Your task to perform on an android device: Toggle the flashlight Image 0: 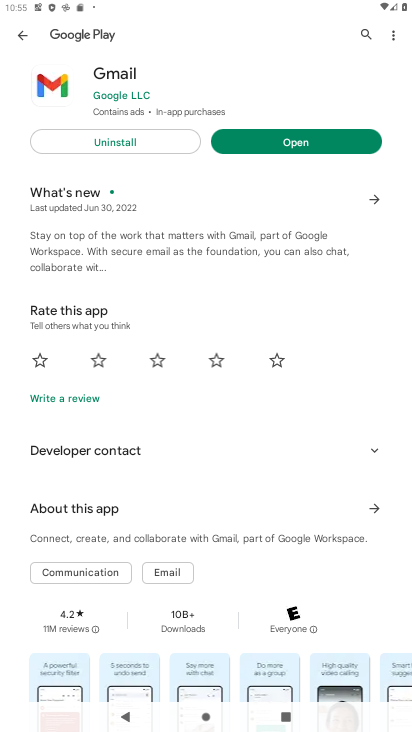
Step 0: press home button
Your task to perform on an android device: Toggle the flashlight Image 1: 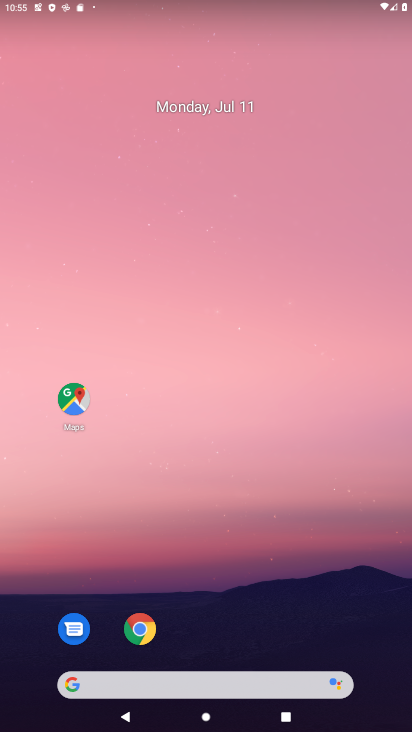
Step 1: drag from (240, 594) to (224, 231)
Your task to perform on an android device: Toggle the flashlight Image 2: 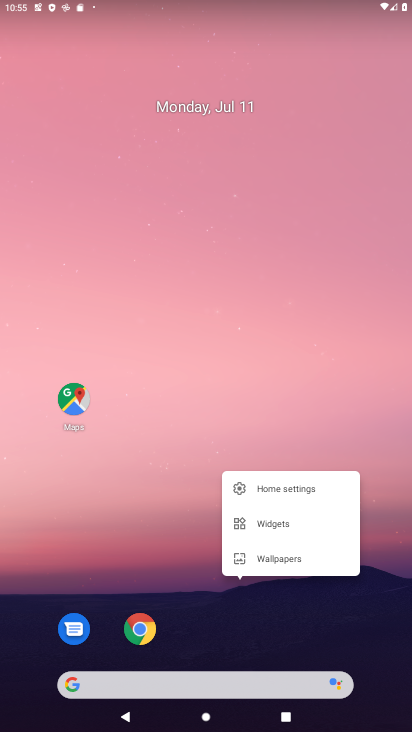
Step 2: click (203, 343)
Your task to perform on an android device: Toggle the flashlight Image 3: 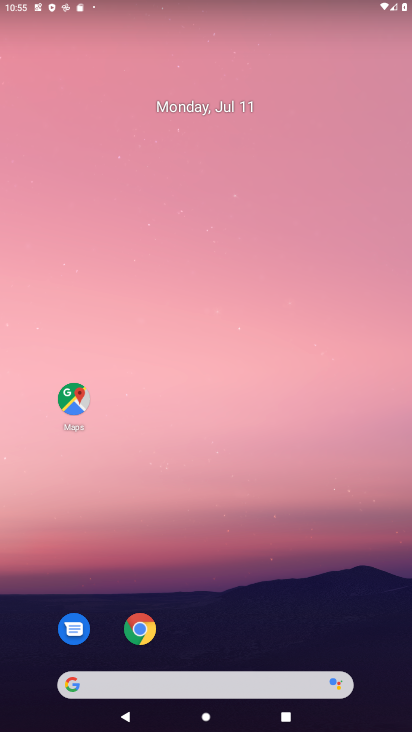
Step 3: drag from (218, 617) to (217, 92)
Your task to perform on an android device: Toggle the flashlight Image 4: 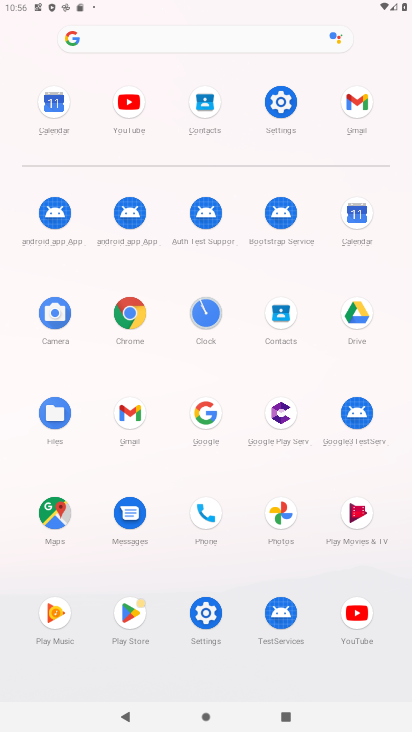
Step 4: click (269, 123)
Your task to perform on an android device: Toggle the flashlight Image 5: 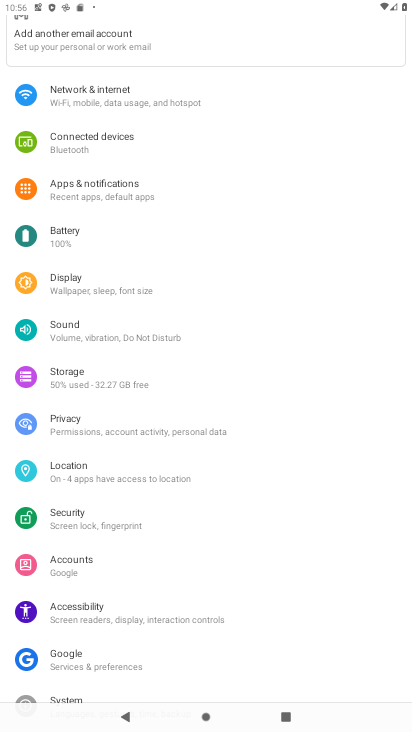
Step 5: click (179, 352)
Your task to perform on an android device: Toggle the flashlight Image 6: 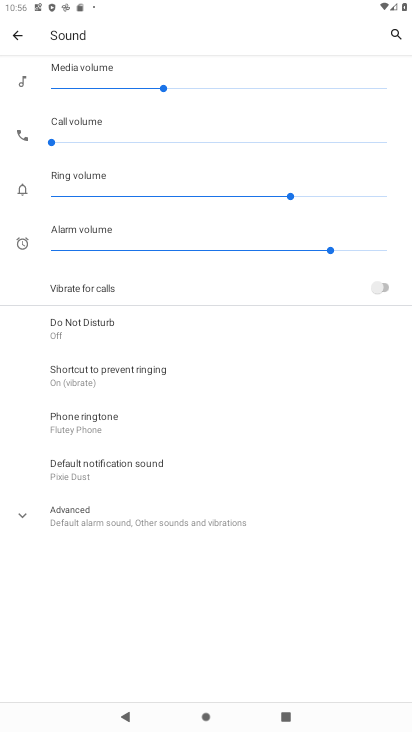
Step 6: task complete